Your task to perform on an android device: Find coffee shops on Maps Image 0: 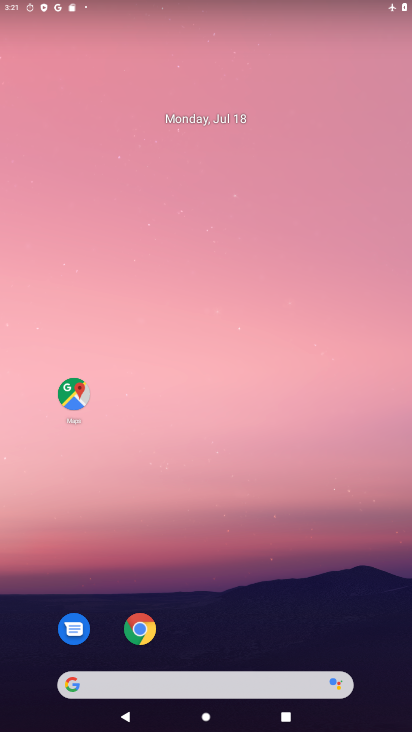
Step 0: click (58, 393)
Your task to perform on an android device: Find coffee shops on Maps Image 1: 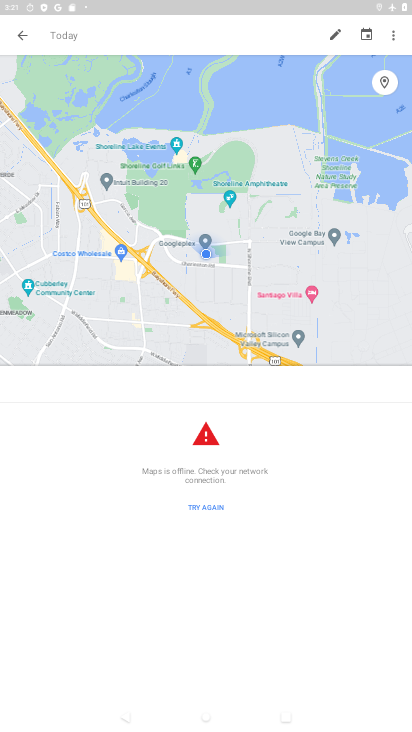
Step 1: click (26, 36)
Your task to perform on an android device: Find coffee shops on Maps Image 2: 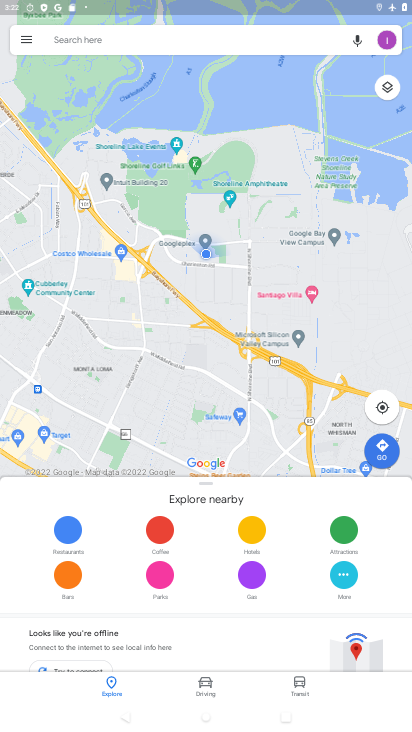
Step 2: click (158, 45)
Your task to perform on an android device: Find coffee shops on Maps Image 3: 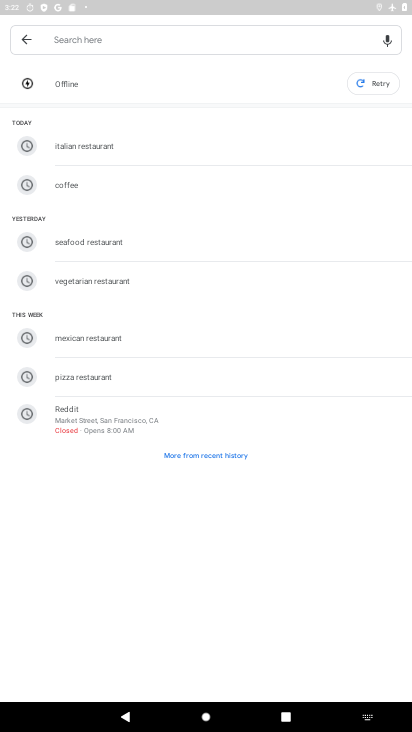
Step 3: click (69, 171)
Your task to perform on an android device: Find coffee shops on Maps Image 4: 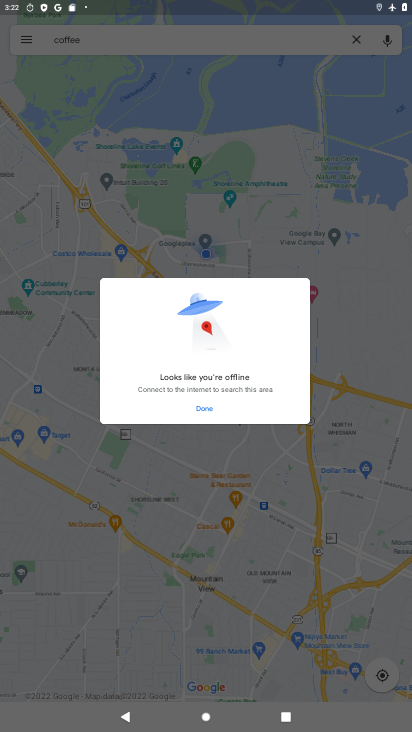
Step 4: task complete